Your task to perform on an android device: Open my contact list Image 0: 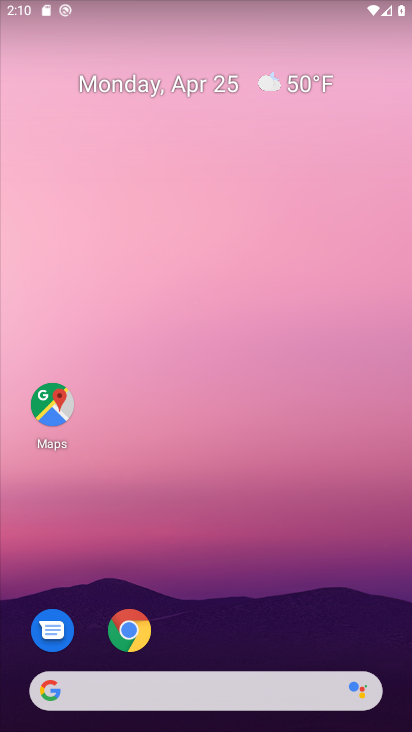
Step 0: drag from (254, 617) to (242, 26)
Your task to perform on an android device: Open my contact list Image 1: 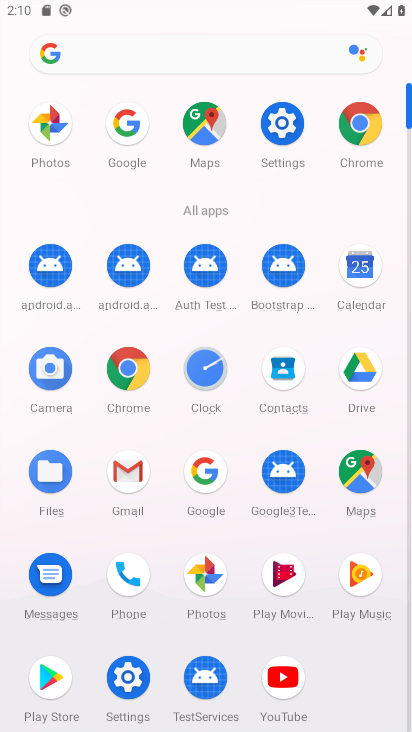
Step 1: click (295, 367)
Your task to perform on an android device: Open my contact list Image 2: 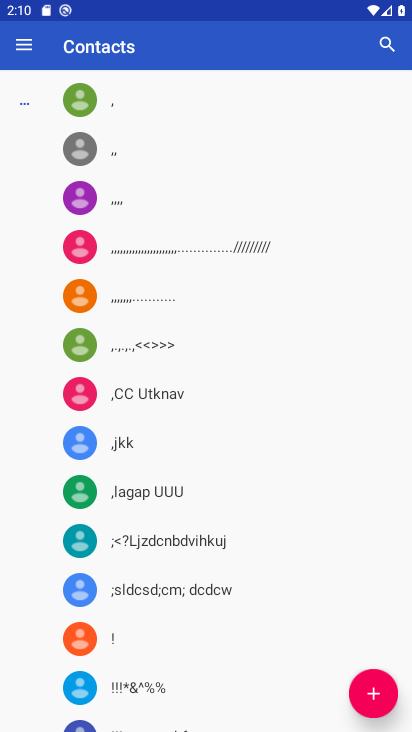
Step 2: task complete